Your task to perform on an android device: Go to network settings Image 0: 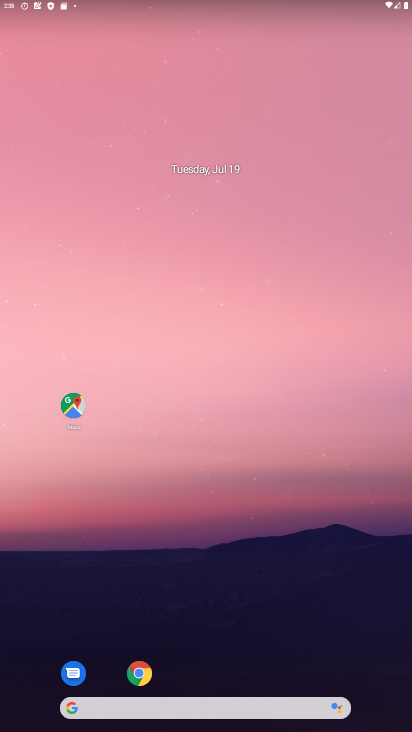
Step 0: click (136, 678)
Your task to perform on an android device: Go to network settings Image 1: 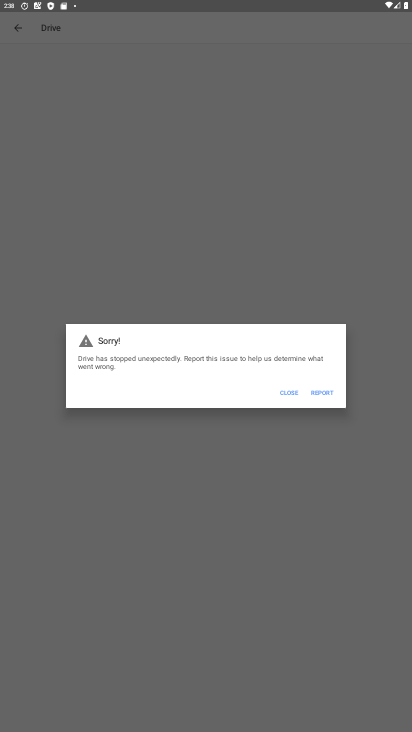
Step 1: press home button
Your task to perform on an android device: Go to network settings Image 2: 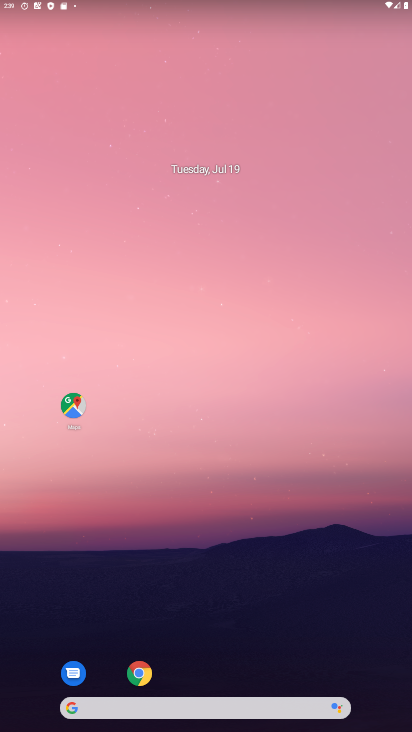
Step 2: drag from (193, 652) to (194, 207)
Your task to perform on an android device: Go to network settings Image 3: 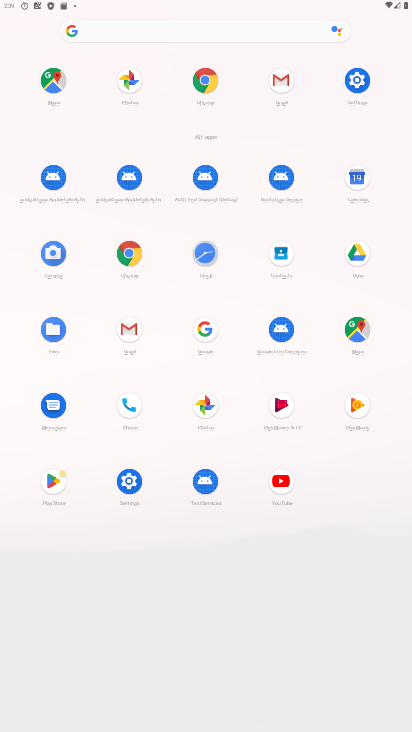
Step 3: click (136, 488)
Your task to perform on an android device: Go to network settings Image 4: 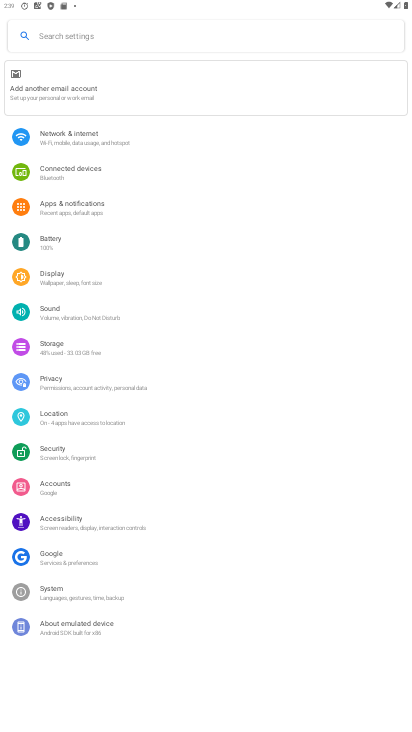
Step 4: click (79, 138)
Your task to perform on an android device: Go to network settings Image 5: 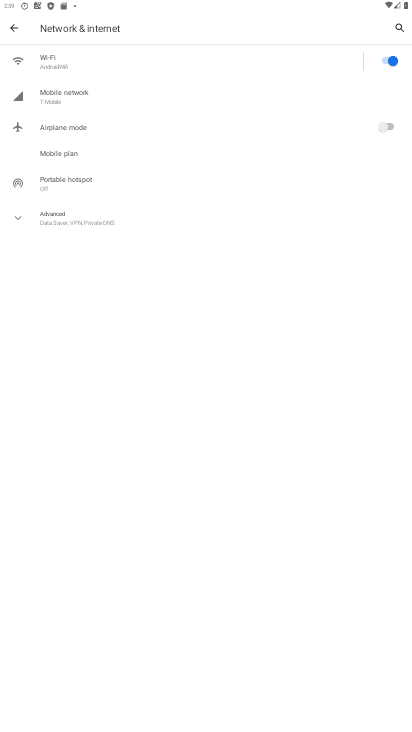
Step 5: click (74, 104)
Your task to perform on an android device: Go to network settings Image 6: 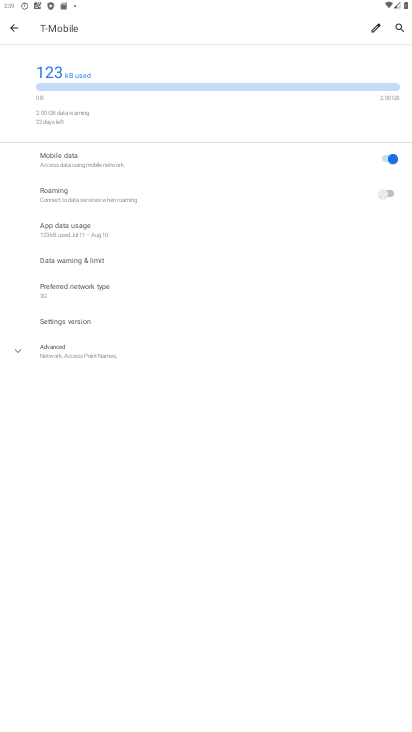
Step 6: task complete